Your task to perform on an android device: open wifi settings Image 0: 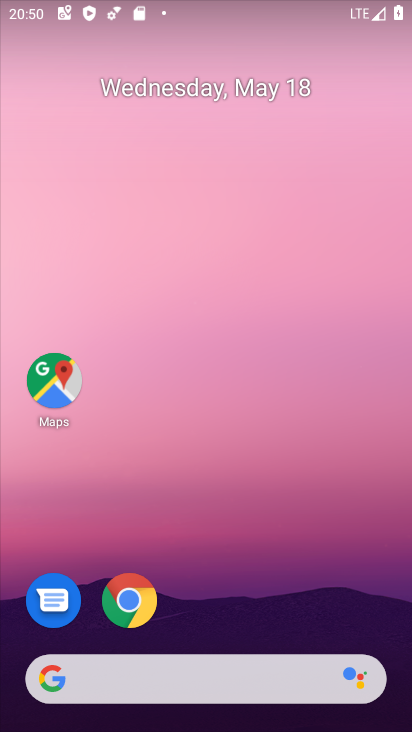
Step 0: drag from (79, 5) to (193, 430)
Your task to perform on an android device: open wifi settings Image 1: 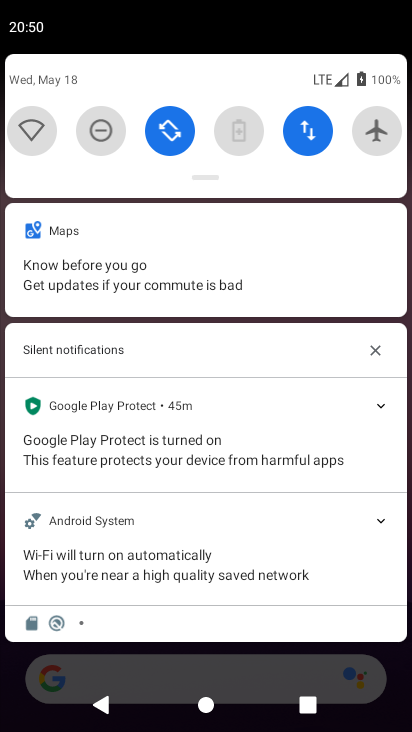
Step 1: click (37, 132)
Your task to perform on an android device: open wifi settings Image 2: 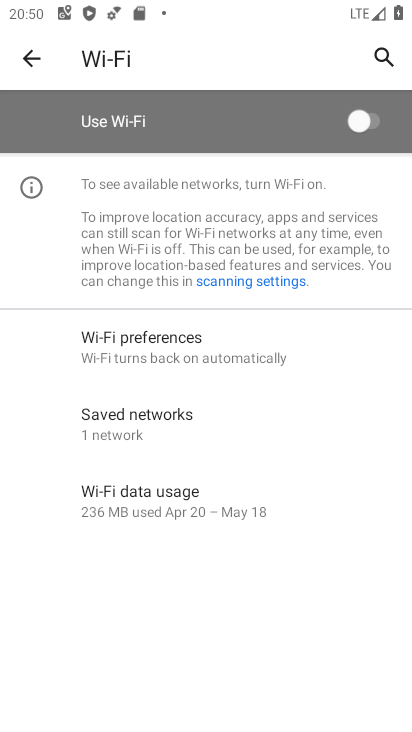
Step 2: task complete